Your task to perform on an android device: turn on the 24-hour format for clock Image 0: 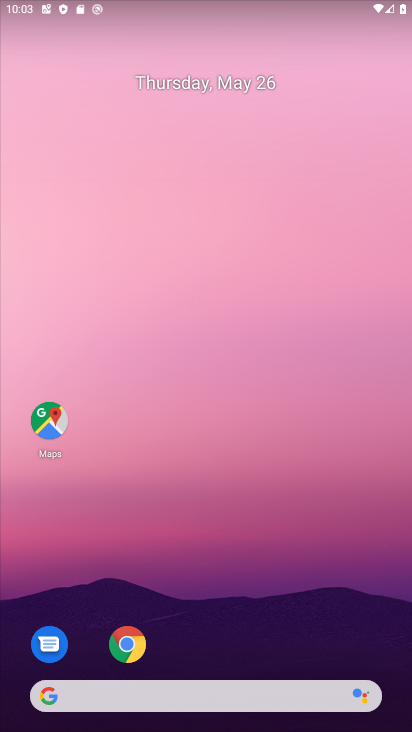
Step 0: drag from (331, 581) to (366, 149)
Your task to perform on an android device: turn on the 24-hour format for clock Image 1: 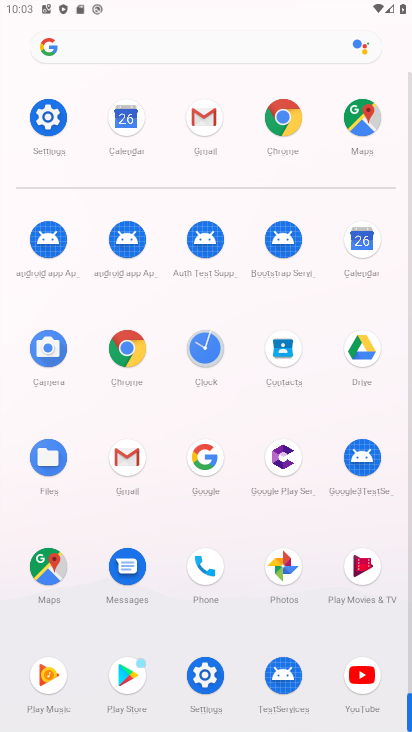
Step 1: click (212, 359)
Your task to perform on an android device: turn on the 24-hour format for clock Image 2: 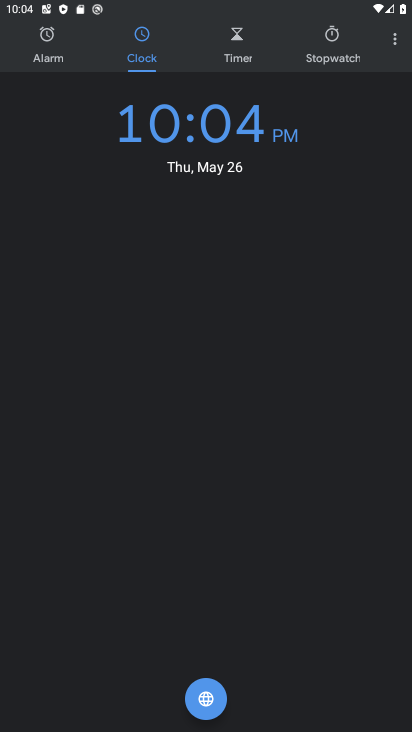
Step 2: click (396, 50)
Your task to perform on an android device: turn on the 24-hour format for clock Image 3: 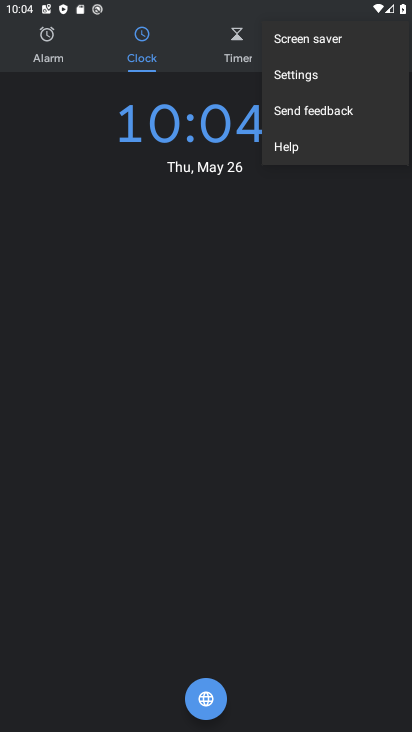
Step 3: click (309, 73)
Your task to perform on an android device: turn on the 24-hour format for clock Image 4: 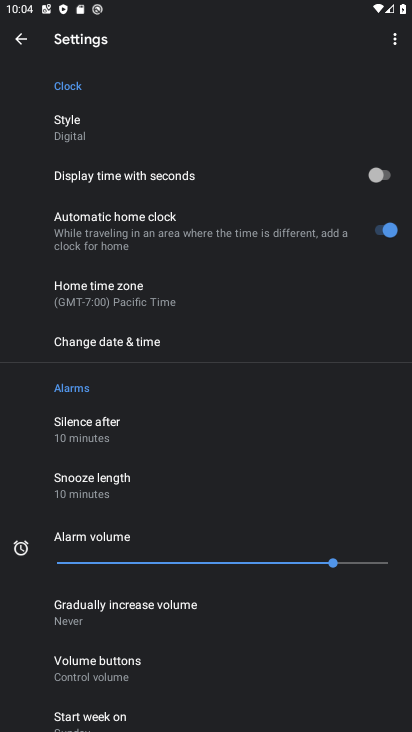
Step 4: click (179, 340)
Your task to perform on an android device: turn on the 24-hour format for clock Image 5: 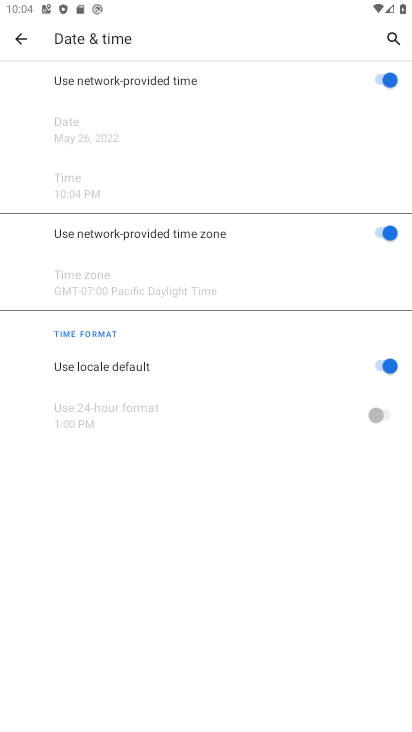
Step 5: click (380, 363)
Your task to perform on an android device: turn on the 24-hour format for clock Image 6: 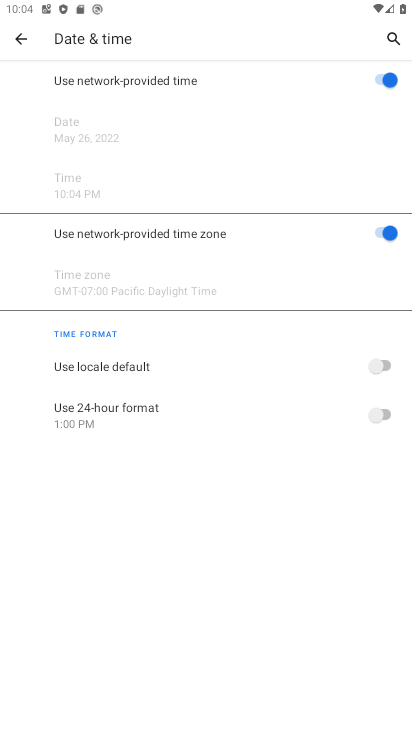
Step 6: click (376, 412)
Your task to perform on an android device: turn on the 24-hour format for clock Image 7: 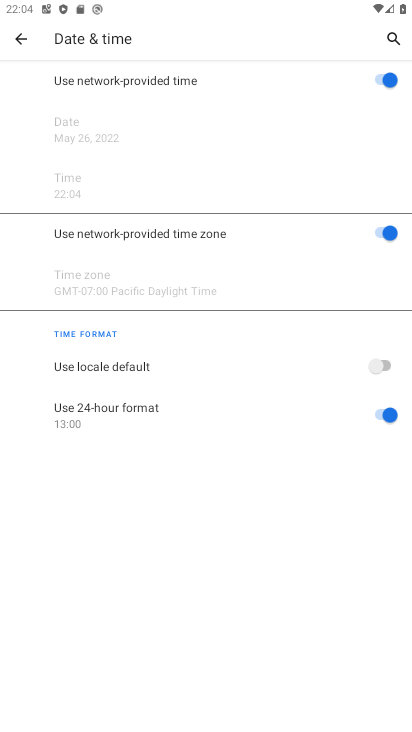
Step 7: task complete